Your task to perform on an android device: Open Google Maps Image 0: 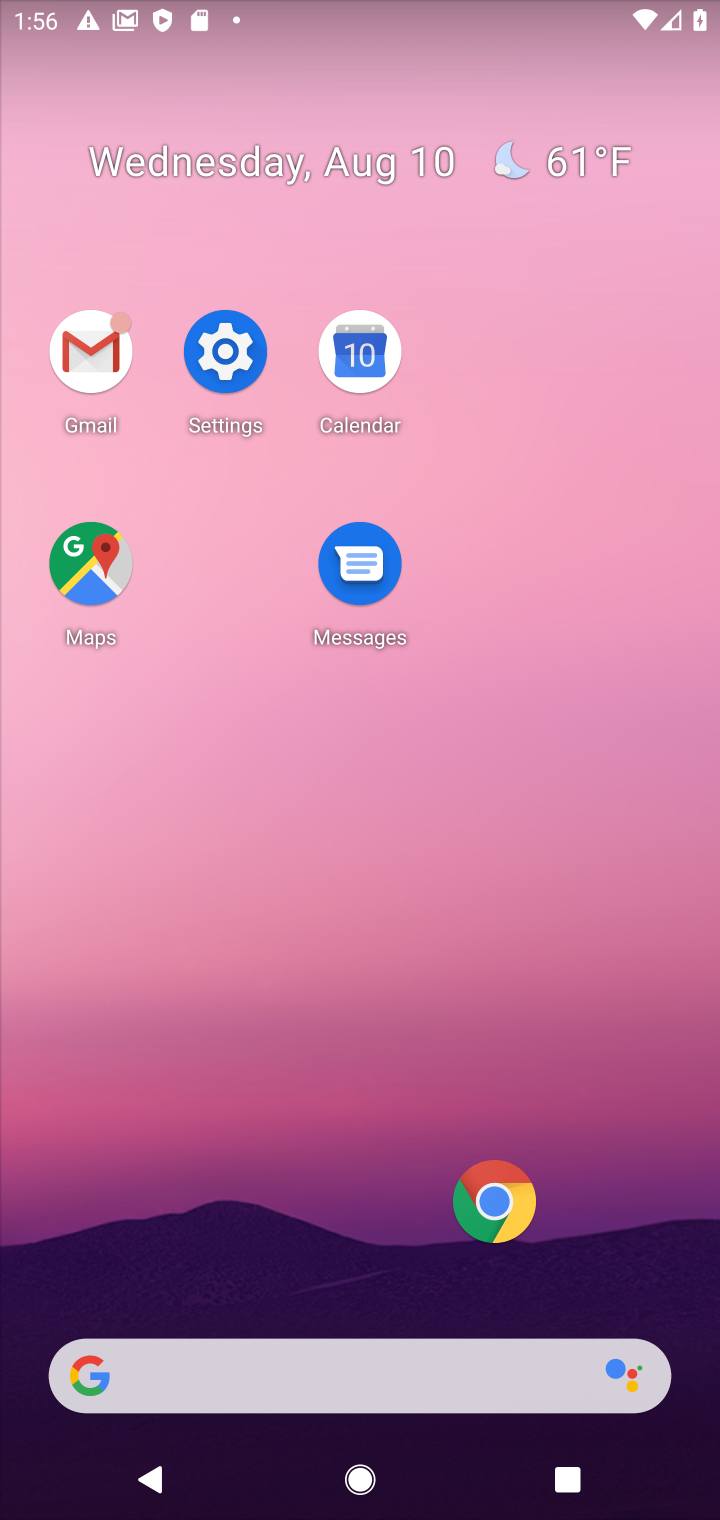
Step 0: click (86, 550)
Your task to perform on an android device: Open Google Maps Image 1: 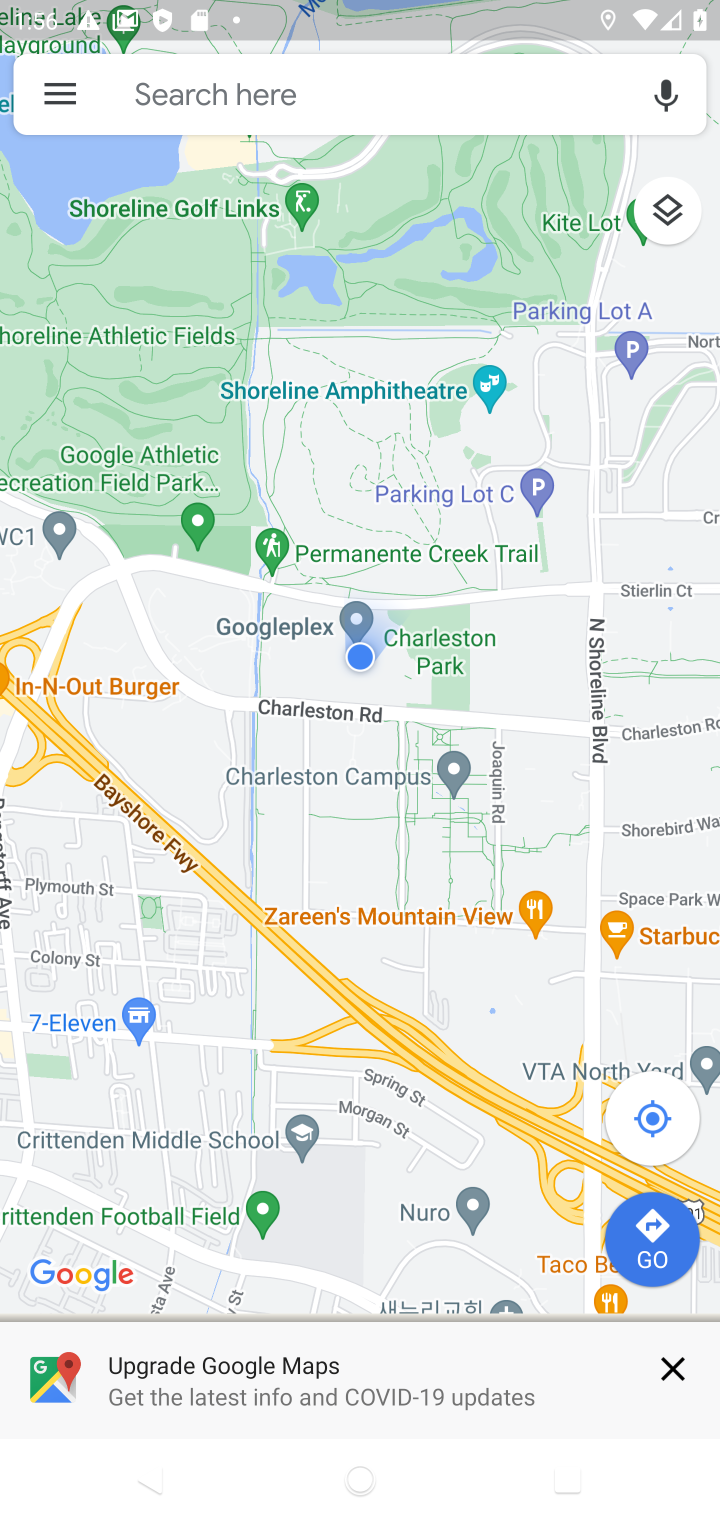
Step 1: task complete